Your task to perform on an android device: Open CNN.com Image 0: 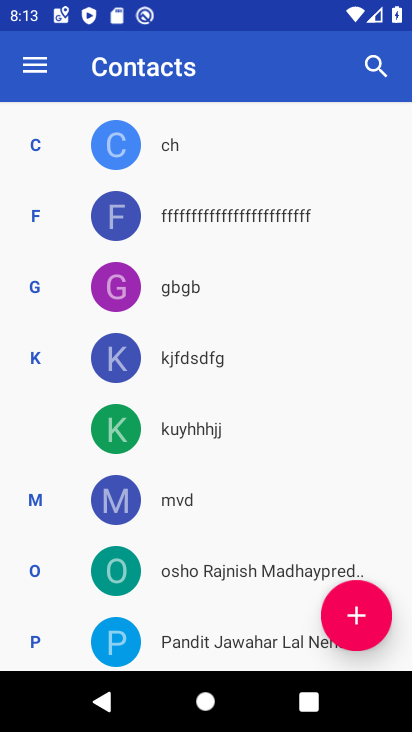
Step 0: press home button
Your task to perform on an android device: Open CNN.com Image 1: 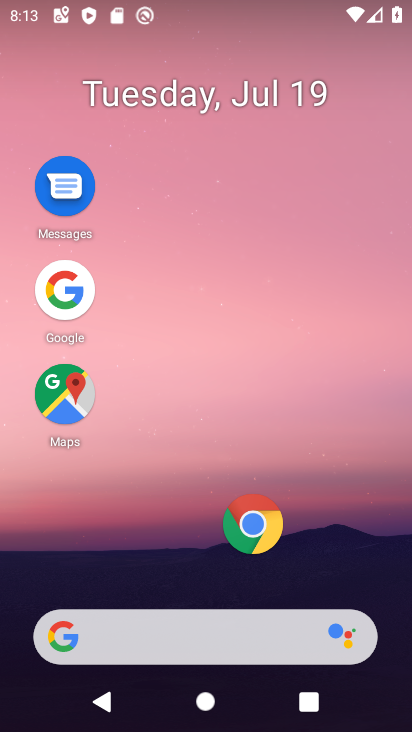
Step 1: click (246, 547)
Your task to perform on an android device: Open CNN.com Image 2: 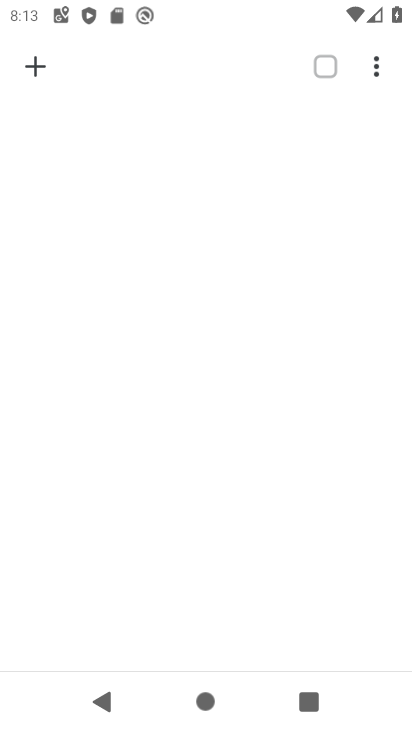
Step 2: click (32, 68)
Your task to perform on an android device: Open CNN.com Image 3: 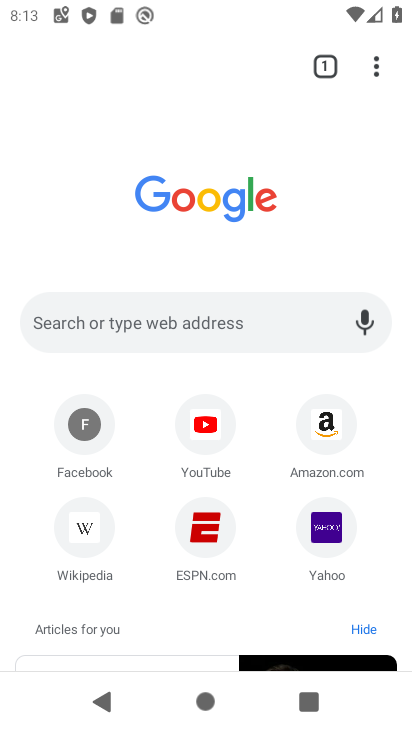
Step 3: click (102, 324)
Your task to perform on an android device: Open CNN.com Image 4: 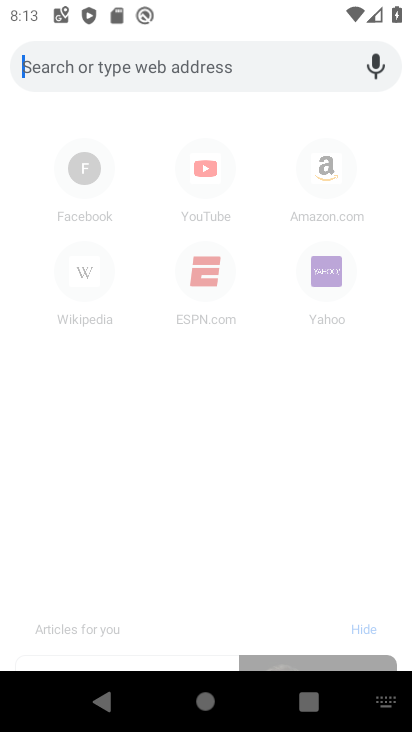
Step 4: type "cnn"
Your task to perform on an android device: Open CNN.com Image 5: 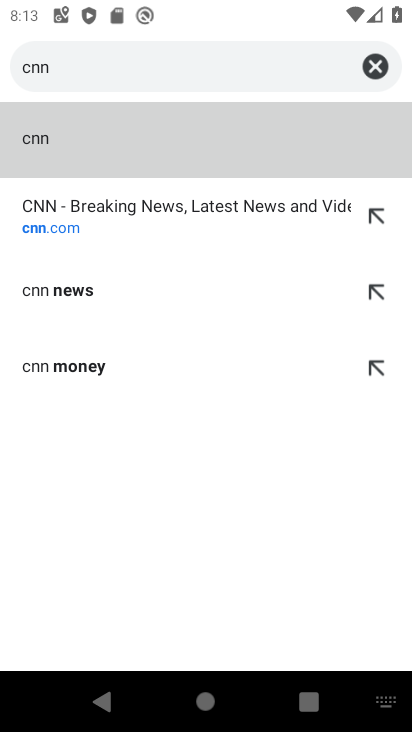
Step 5: click (112, 224)
Your task to perform on an android device: Open CNN.com Image 6: 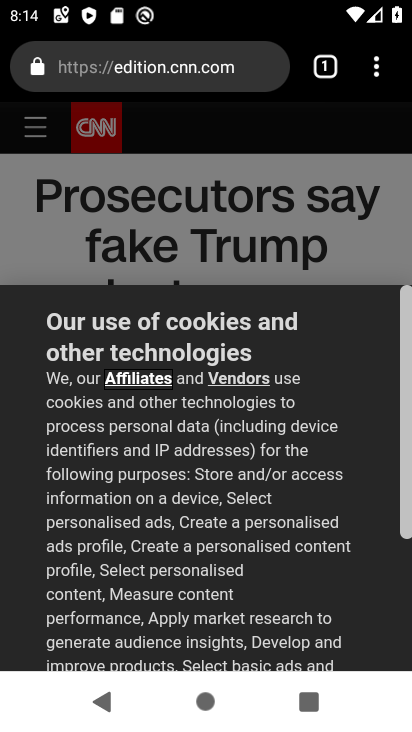
Step 6: task complete